Your task to perform on an android device: Search for "acer predator" on newegg.com, select the first entry, and add it to the cart. Image 0: 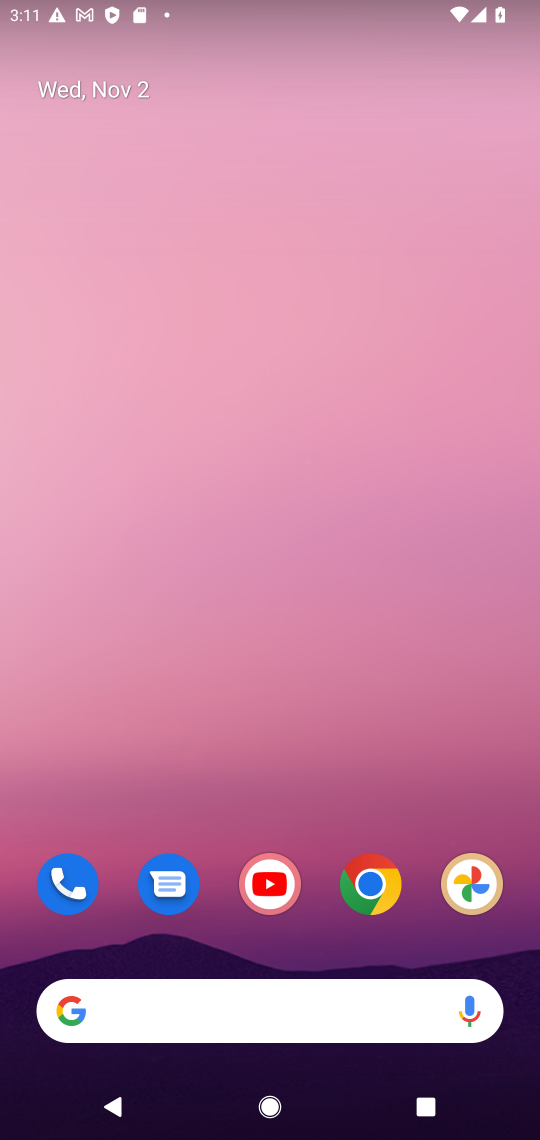
Step 0: click (372, 882)
Your task to perform on an android device: Search for "acer predator" on newegg.com, select the first entry, and add it to the cart. Image 1: 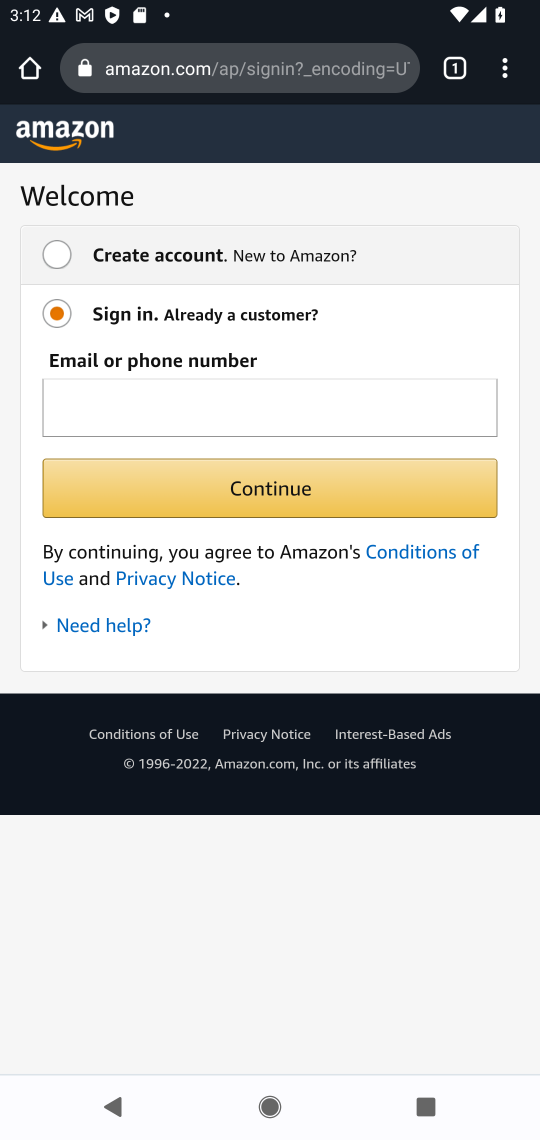
Step 1: click (204, 62)
Your task to perform on an android device: Search for "acer predator" on newegg.com, select the first entry, and add it to the cart. Image 2: 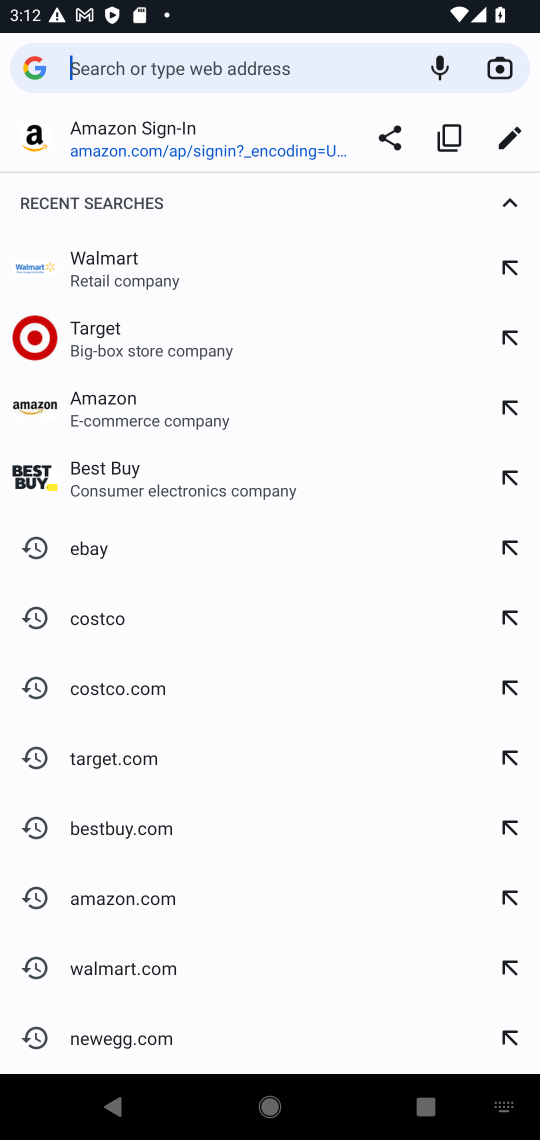
Step 2: type "newegg.com"
Your task to perform on an android device: Search for "acer predator" on newegg.com, select the first entry, and add it to the cart. Image 3: 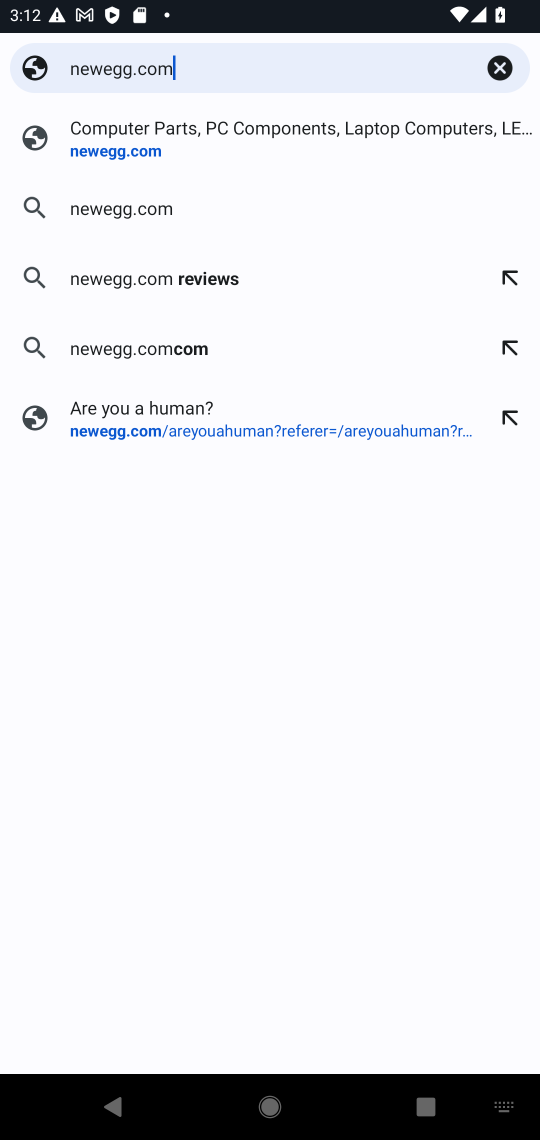
Step 3: click (158, 209)
Your task to perform on an android device: Search for "acer predator" on newegg.com, select the first entry, and add it to the cart. Image 4: 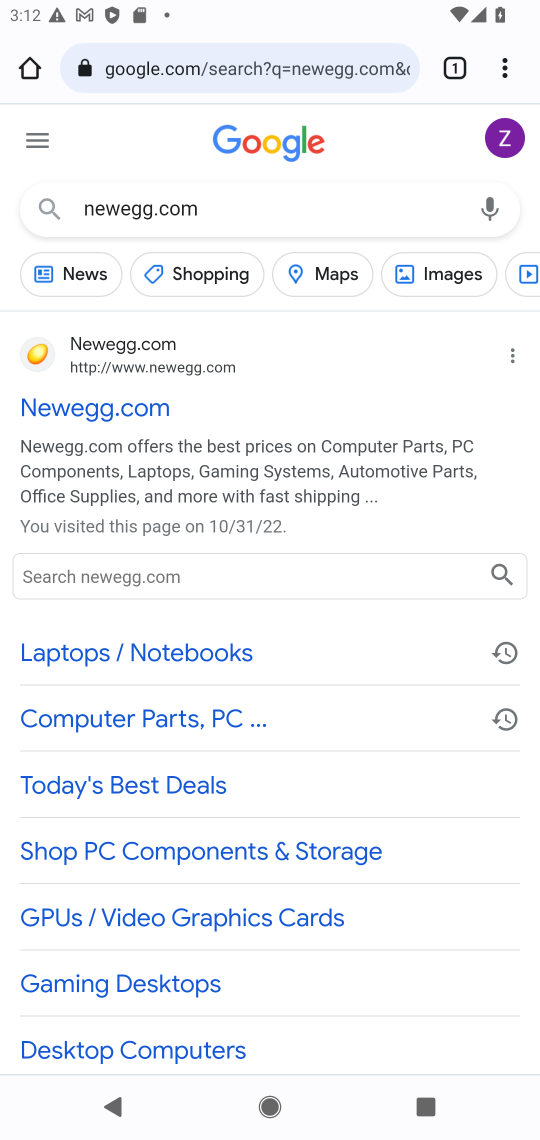
Step 4: click (101, 420)
Your task to perform on an android device: Search for "acer predator" on newegg.com, select the first entry, and add it to the cart. Image 5: 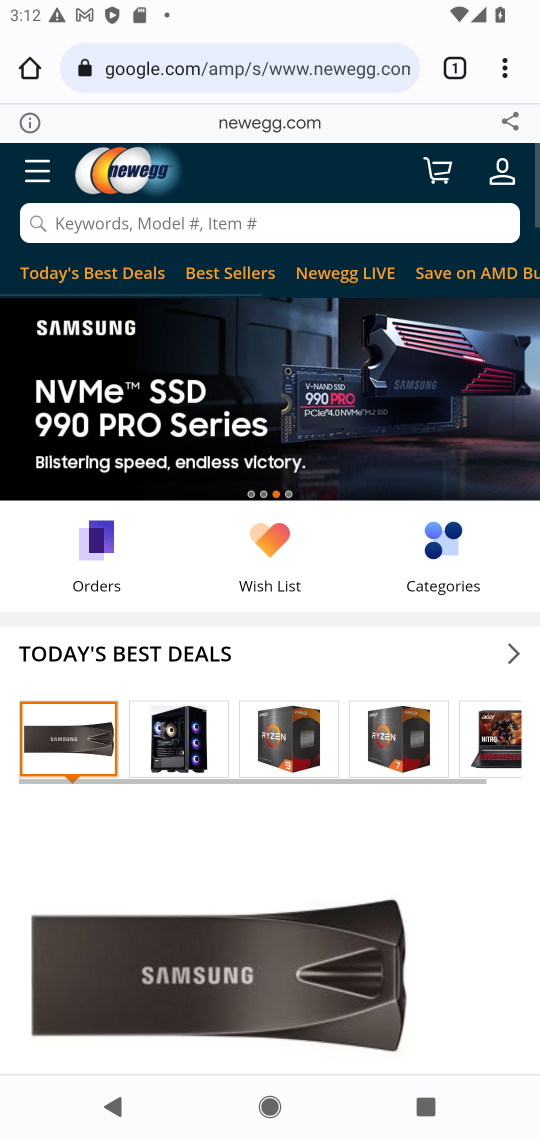
Step 5: click (351, 230)
Your task to perform on an android device: Search for "acer predator" on newegg.com, select the first entry, and add it to the cart. Image 6: 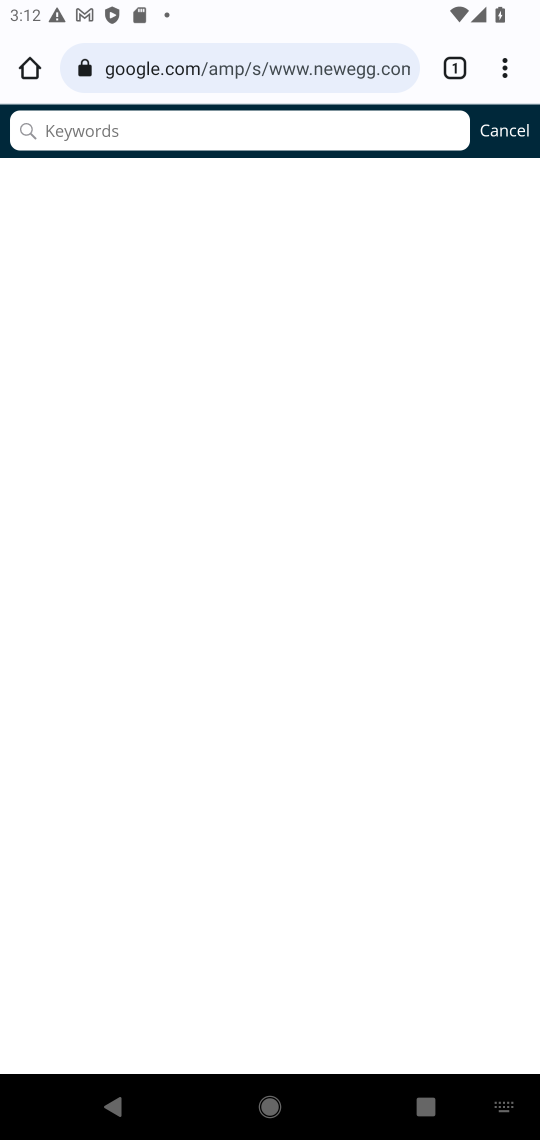
Step 6: type "acer predator"
Your task to perform on an android device: Search for "acer predator" on newegg.com, select the first entry, and add it to the cart. Image 7: 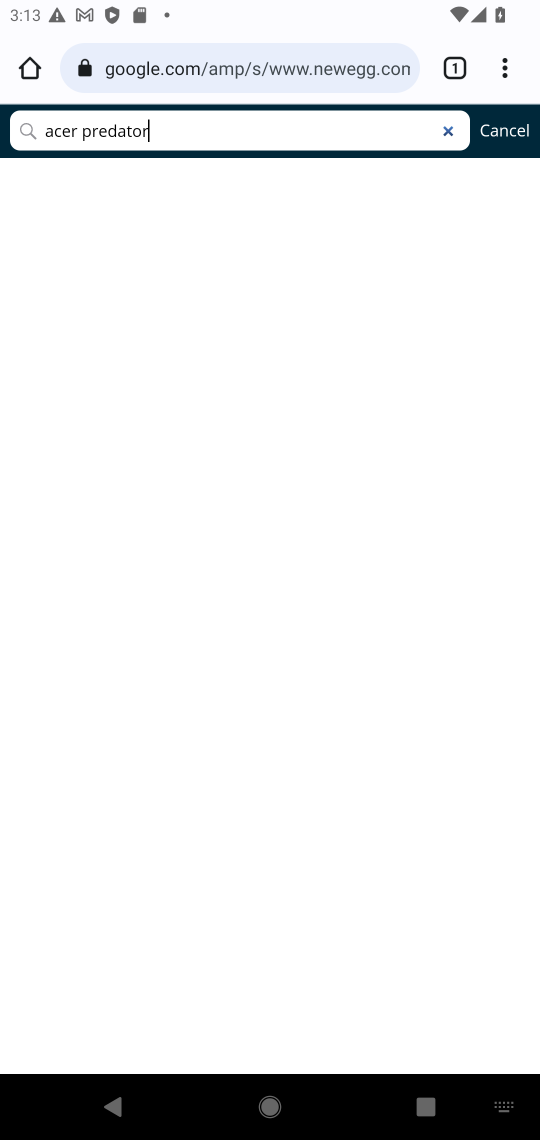
Step 7: task complete